Your task to perform on an android device: turn on showing notifications on the lock screen Image 0: 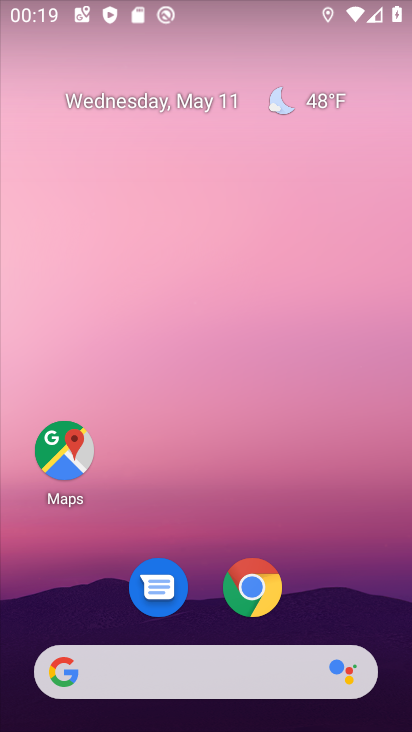
Step 0: drag from (340, 582) to (293, 158)
Your task to perform on an android device: turn on showing notifications on the lock screen Image 1: 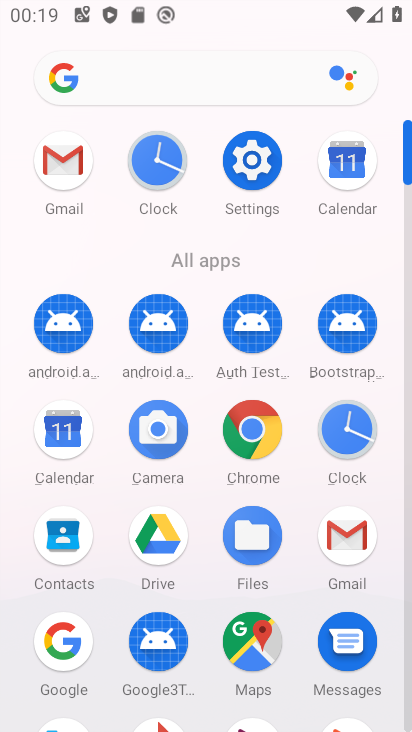
Step 1: click (267, 176)
Your task to perform on an android device: turn on showing notifications on the lock screen Image 2: 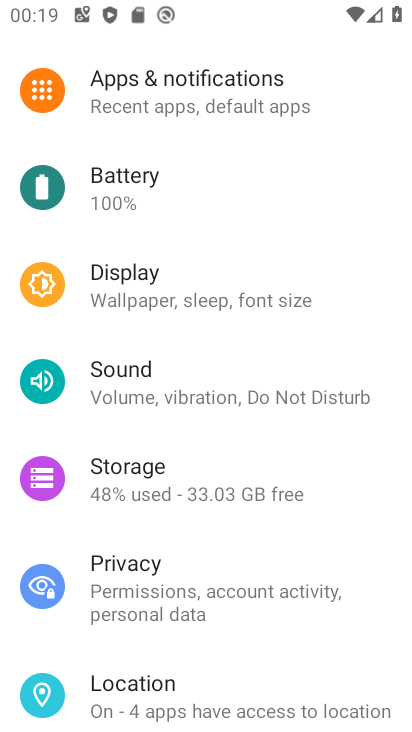
Step 2: click (182, 108)
Your task to perform on an android device: turn on showing notifications on the lock screen Image 3: 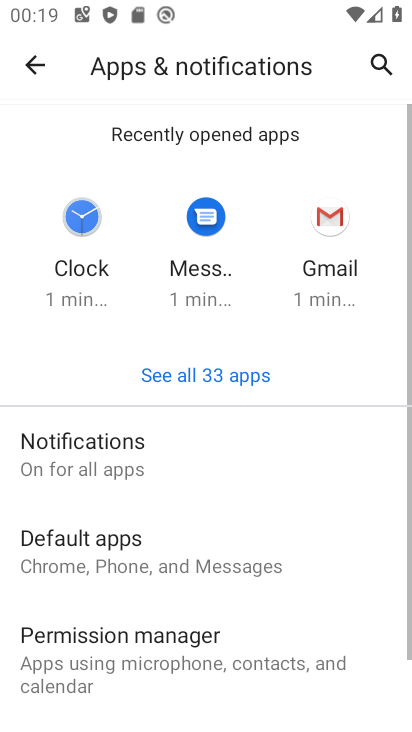
Step 3: drag from (247, 585) to (190, 244)
Your task to perform on an android device: turn on showing notifications on the lock screen Image 4: 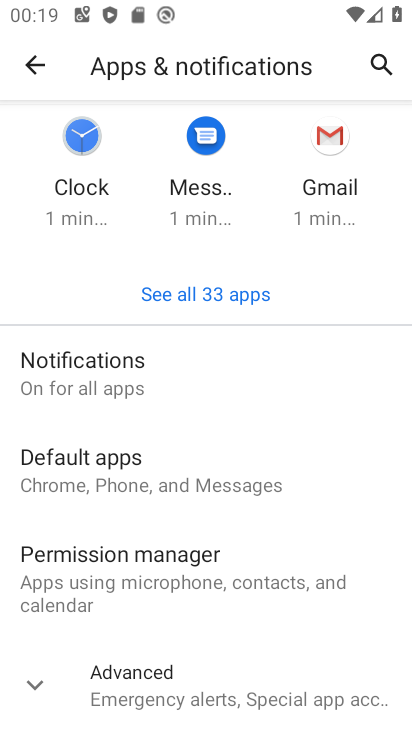
Step 4: click (204, 385)
Your task to perform on an android device: turn on showing notifications on the lock screen Image 5: 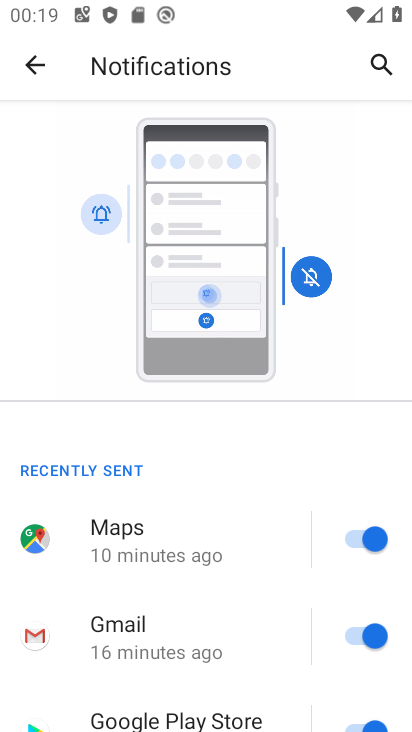
Step 5: drag from (212, 431) to (148, 69)
Your task to perform on an android device: turn on showing notifications on the lock screen Image 6: 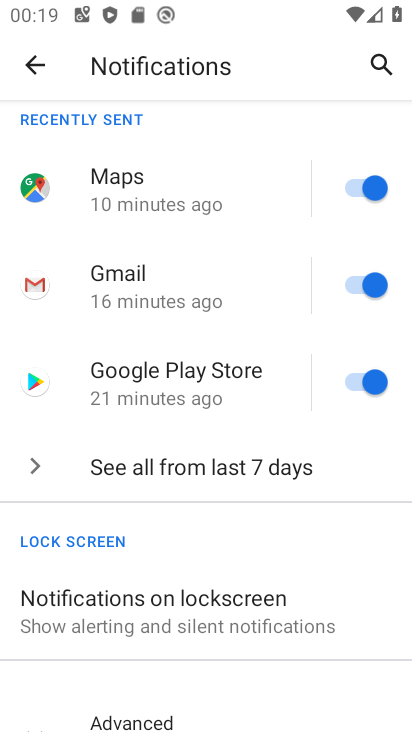
Step 6: click (196, 602)
Your task to perform on an android device: turn on showing notifications on the lock screen Image 7: 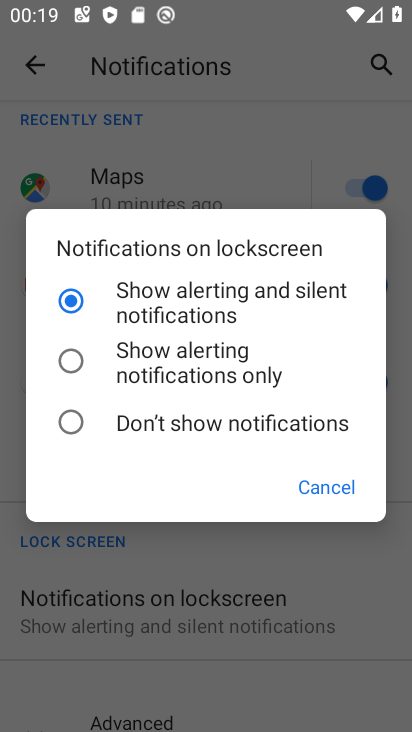
Step 7: task complete